Your task to perform on an android device: turn off location history Image 0: 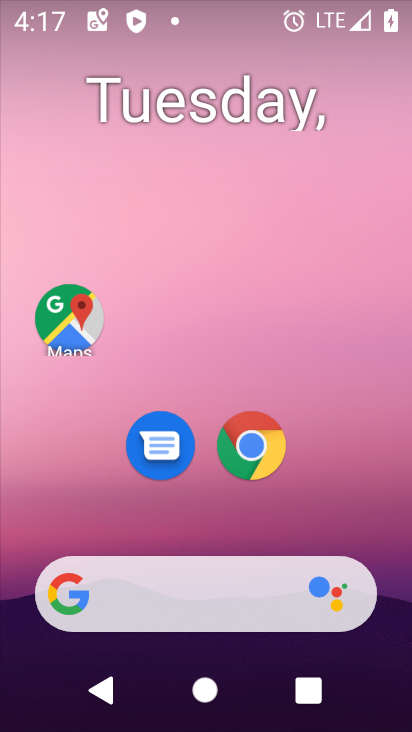
Step 0: drag from (376, 543) to (411, 211)
Your task to perform on an android device: turn off location history Image 1: 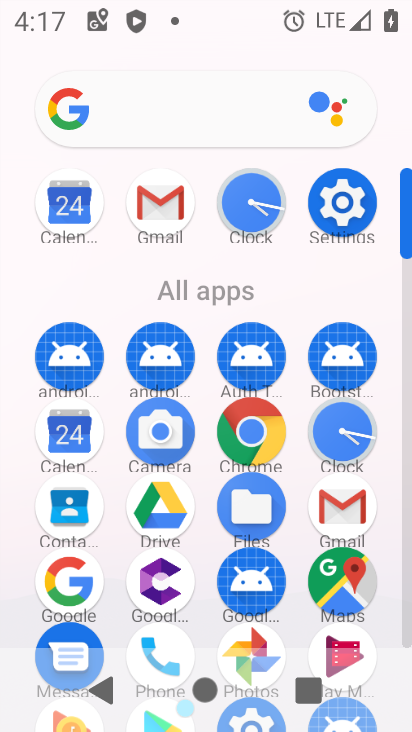
Step 1: click (334, 214)
Your task to perform on an android device: turn off location history Image 2: 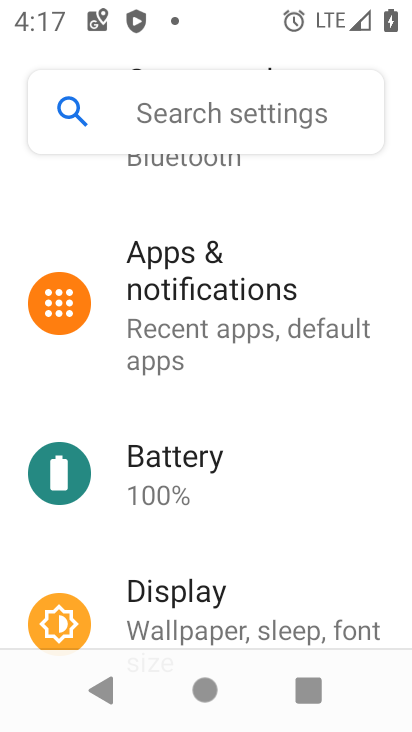
Step 2: drag from (375, 538) to (403, 291)
Your task to perform on an android device: turn off location history Image 3: 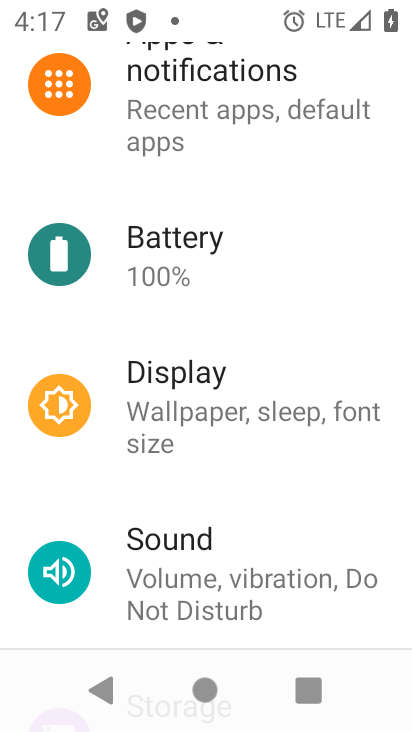
Step 3: drag from (374, 508) to (385, 208)
Your task to perform on an android device: turn off location history Image 4: 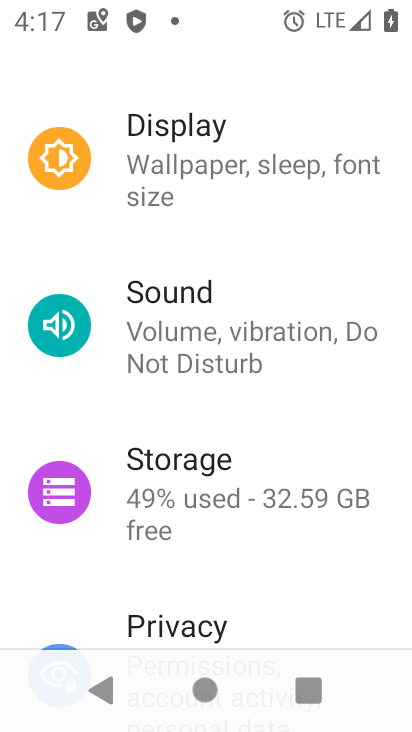
Step 4: drag from (381, 529) to (401, 205)
Your task to perform on an android device: turn off location history Image 5: 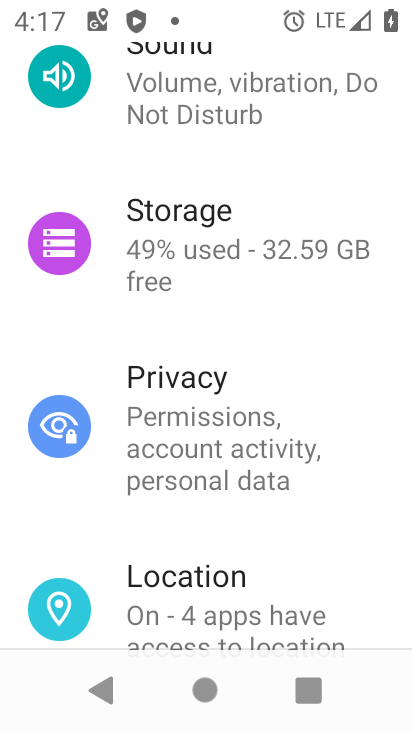
Step 5: click (280, 612)
Your task to perform on an android device: turn off location history Image 6: 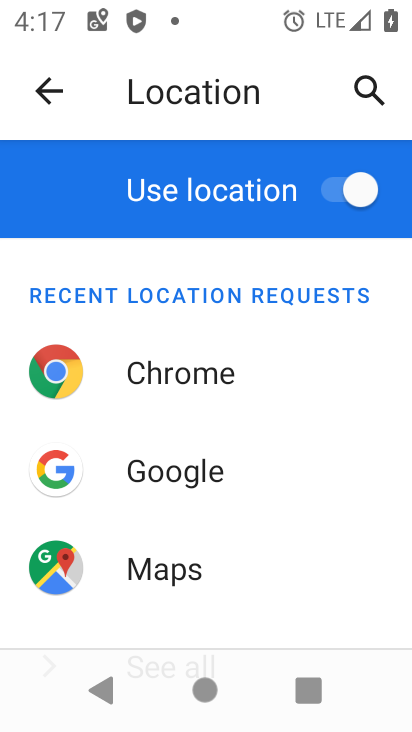
Step 6: click (280, 612)
Your task to perform on an android device: turn off location history Image 7: 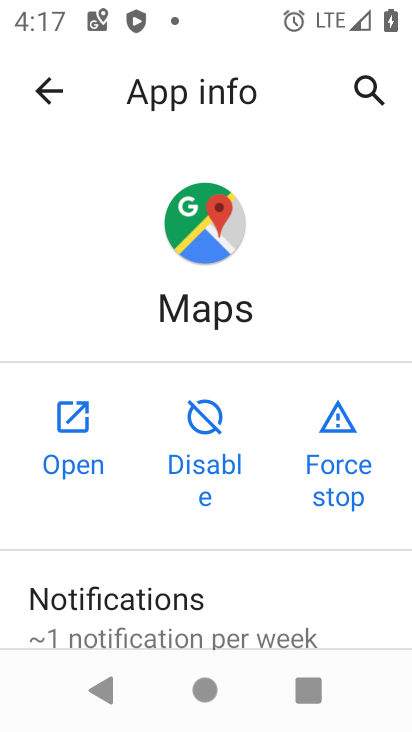
Step 7: click (52, 84)
Your task to perform on an android device: turn off location history Image 8: 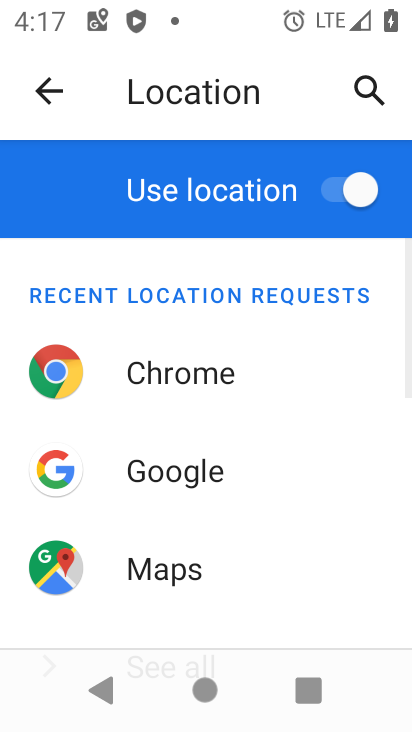
Step 8: drag from (237, 572) to (264, 91)
Your task to perform on an android device: turn off location history Image 9: 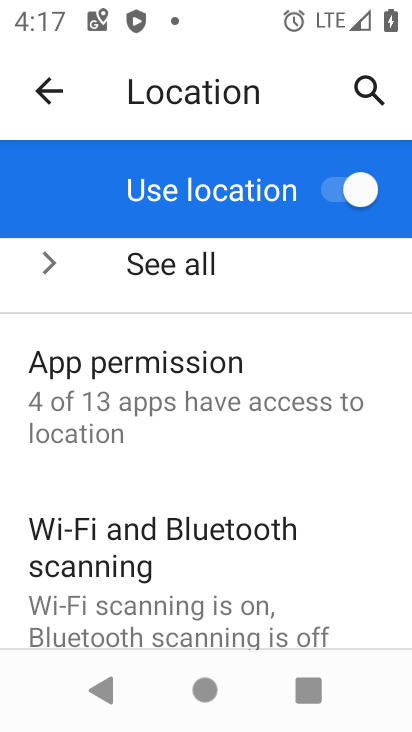
Step 9: drag from (280, 572) to (318, 219)
Your task to perform on an android device: turn off location history Image 10: 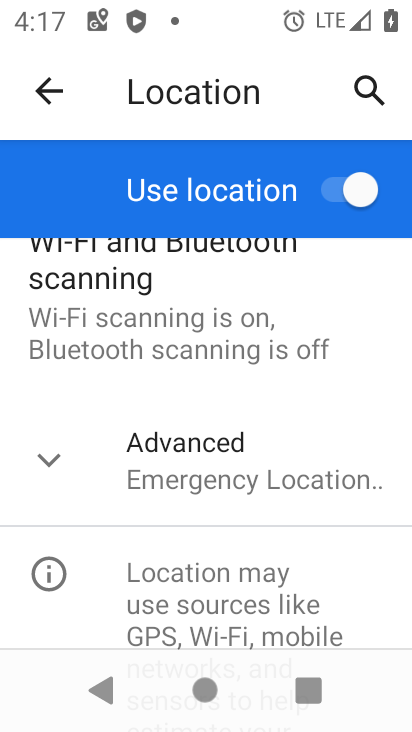
Step 10: click (254, 475)
Your task to perform on an android device: turn off location history Image 11: 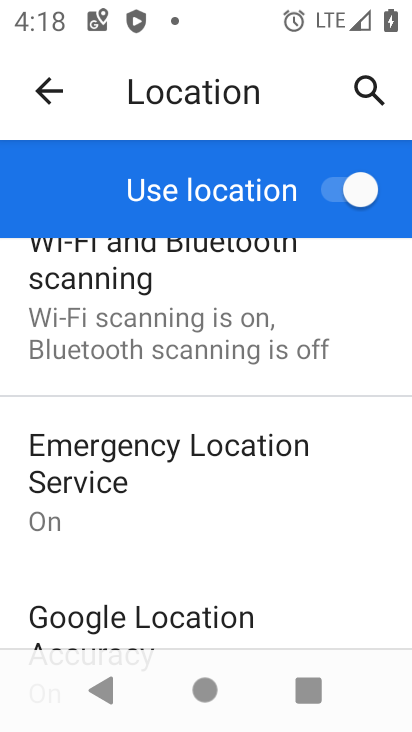
Step 11: drag from (297, 604) to (299, 353)
Your task to perform on an android device: turn off location history Image 12: 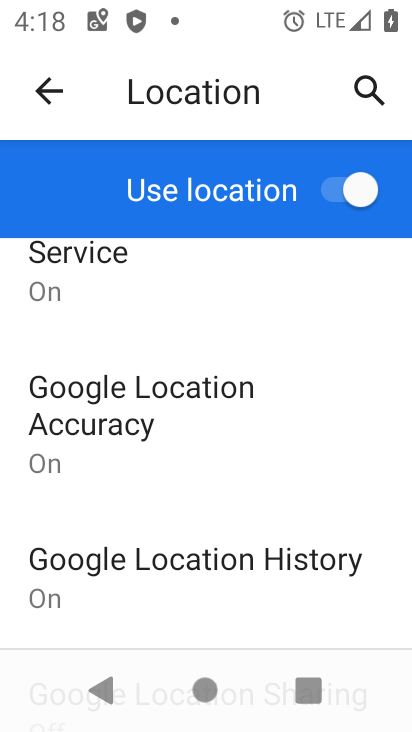
Step 12: click (252, 553)
Your task to perform on an android device: turn off location history Image 13: 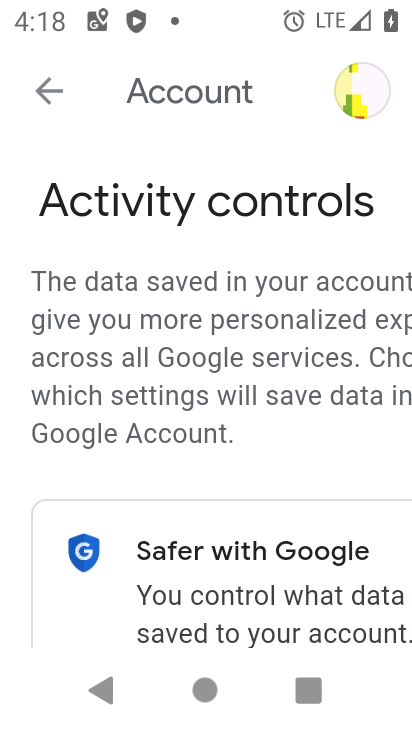
Step 13: task complete